Your task to perform on an android device: refresh tabs in the chrome app Image 0: 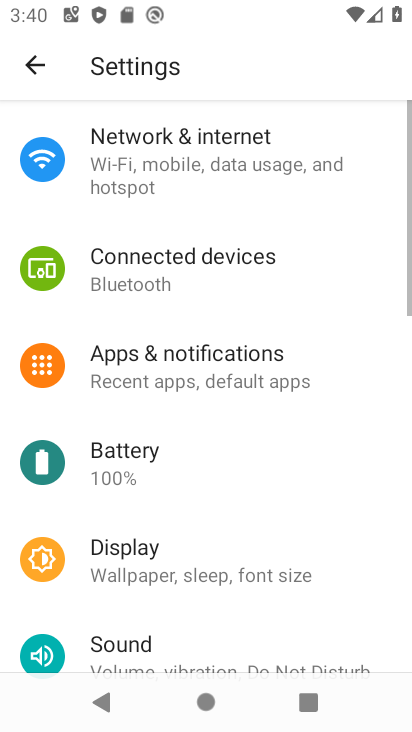
Step 0: press home button
Your task to perform on an android device: refresh tabs in the chrome app Image 1: 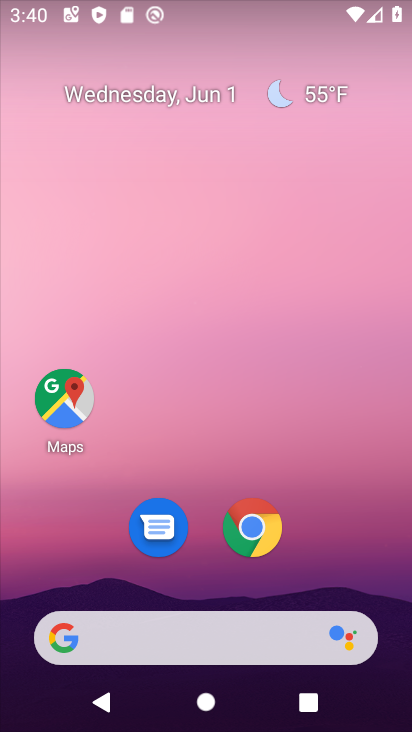
Step 1: drag from (337, 485) to (364, 301)
Your task to perform on an android device: refresh tabs in the chrome app Image 2: 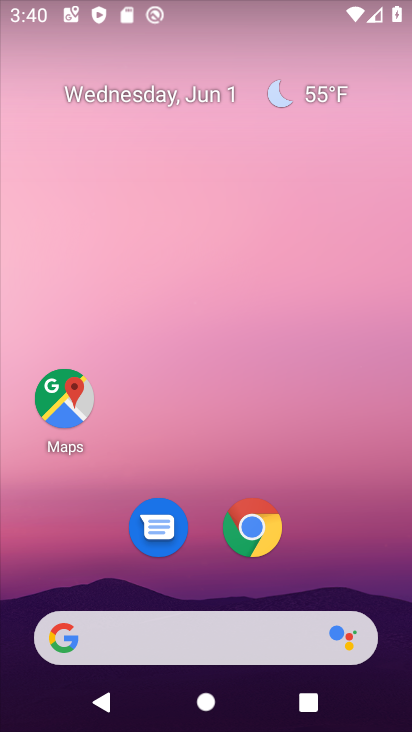
Step 2: drag from (364, 301) to (237, 31)
Your task to perform on an android device: refresh tabs in the chrome app Image 3: 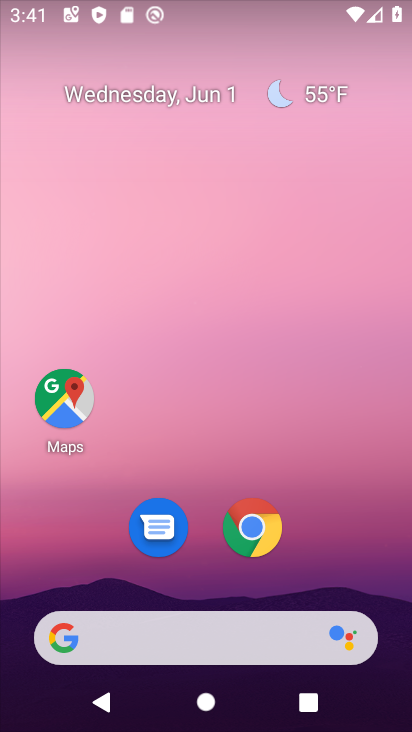
Step 3: click (275, 533)
Your task to perform on an android device: refresh tabs in the chrome app Image 4: 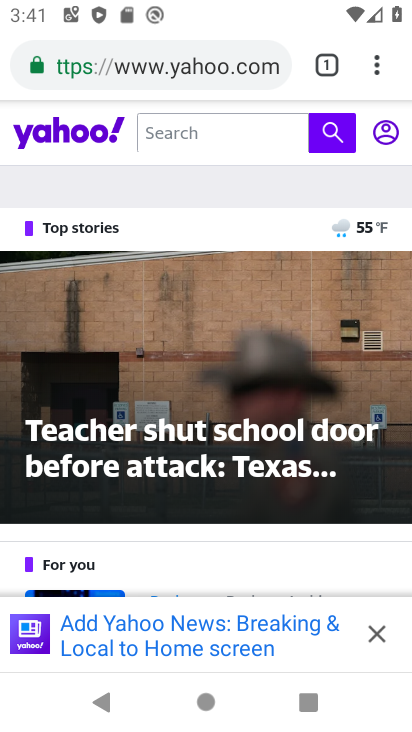
Step 4: drag from (371, 64) to (331, 74)
Your task to perform on an android device: refresh tabs in the chrome app Image 5: 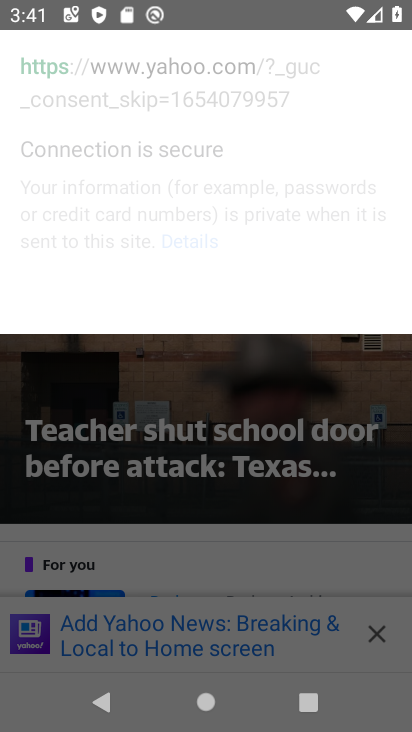
Step 5: click (349, 74)
Your task to perform on an android device: refresh tabs in the chrome app Image 6: 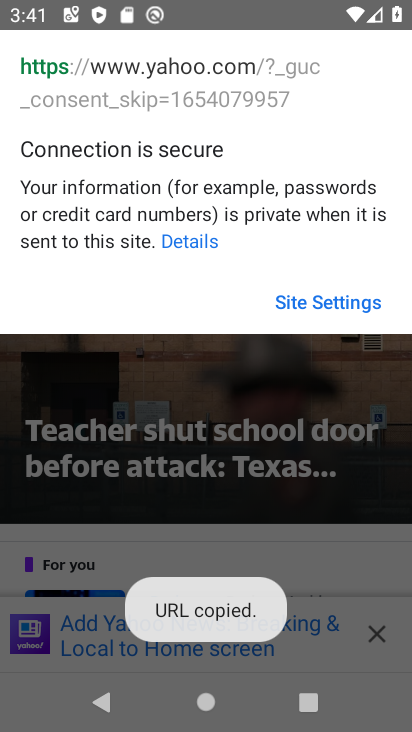
Step 6: click (305, 392)
Your task to perform on an android device: refresh tabs in the chrome app Image 7: 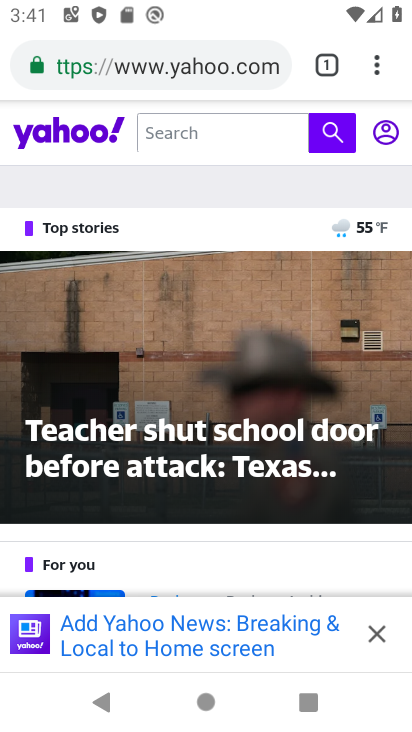
Step 7: click (378, 55)
Your task to perform on an android device: refresh tabs in the chrome app Image 8: 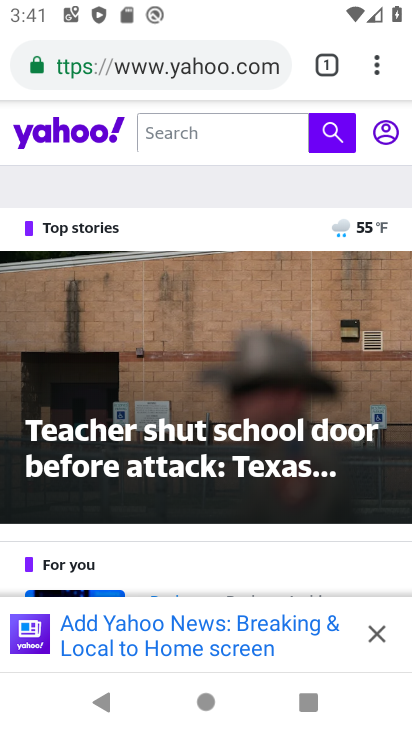
Step 8: task complete